Your task to perform on an android device: check battery use Image 0: 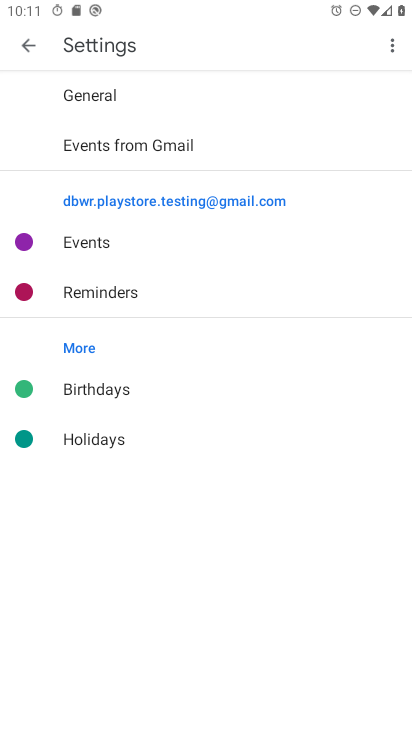
Step 0: press home button
Your task to perform on an android device: check battery use Image 1: 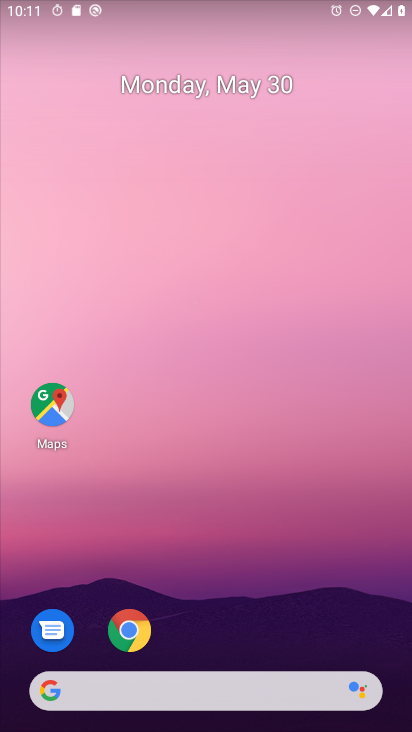
Step 1: drag from (346, 609) to (304, 52)
Your task to perform on an android device: check battery use Image 2: 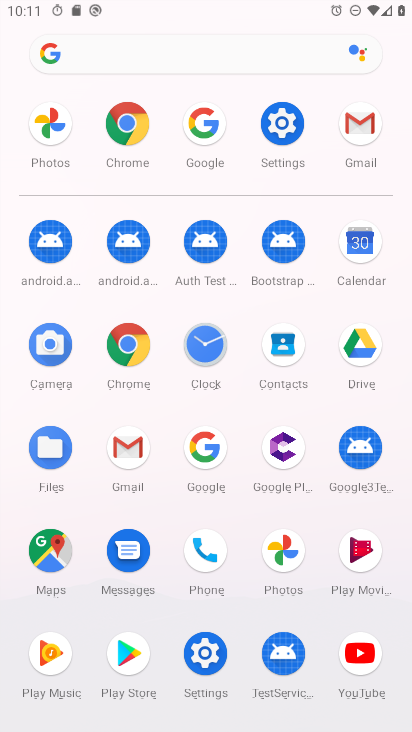
Step 2: click (186, 662)
Your task to perform on an android device: check battery use Image 3: 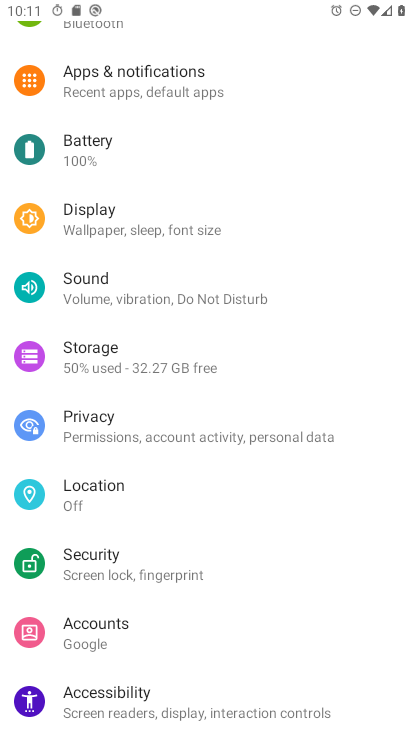
Step 3: click (138, 144)
Your task to perform on an android device: check battery use Image 4: 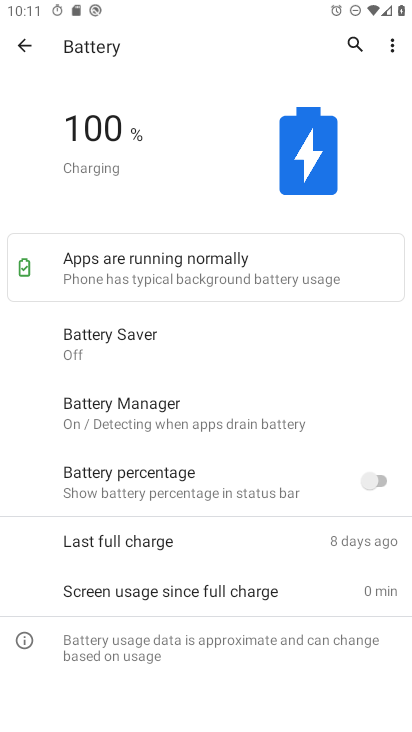
Step 4: click (395, 39)
Your task to perform on an android device: check battery use Image 5: 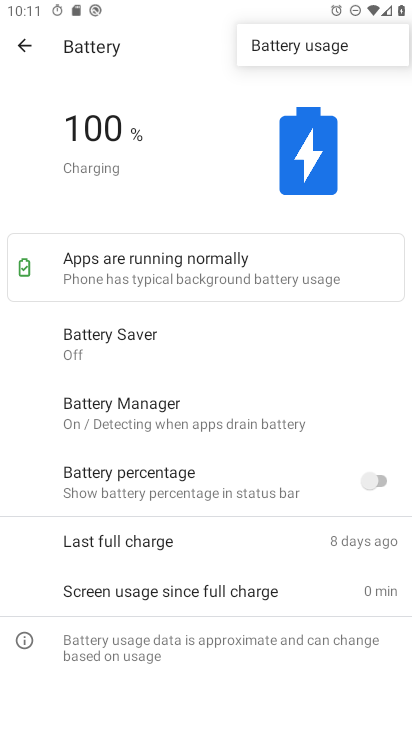
Step 5: click (312, 50)
Your task to perform on an android device: check battery use Image 6: 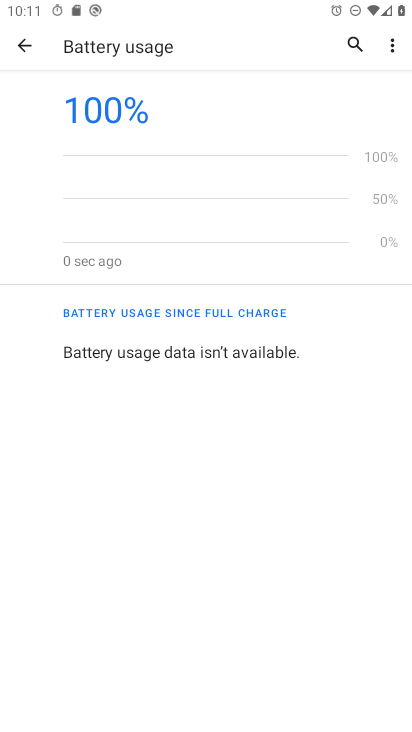
Step 6: task complete